Your task to perform on an android device: open app "DuckDuckGo Privacy Browser" (install if not already installed) and go to login screen Image 0: 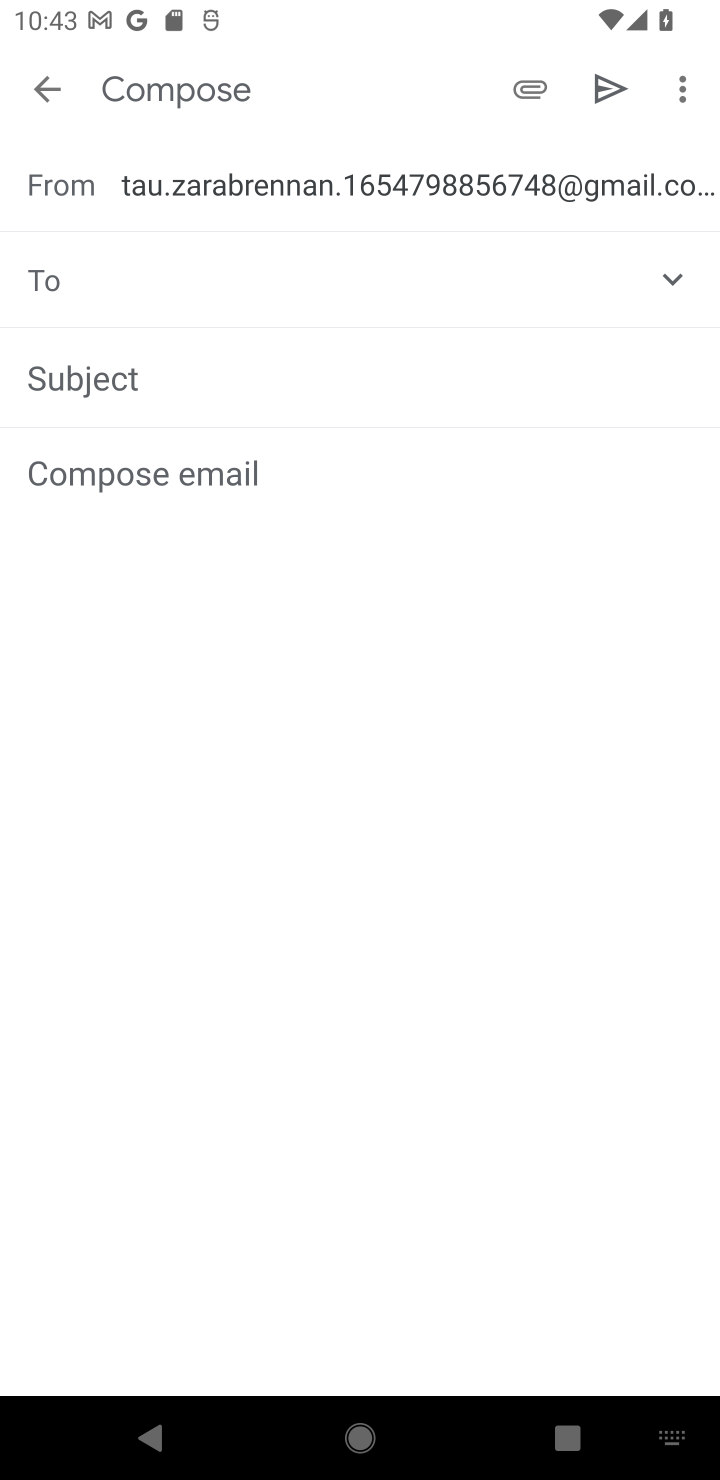
Step 0: press home button
Your task to perform on an android device: open app "DuckDuckGo Privacy Browser" (install if not already installed) and go to login screen Image 1: 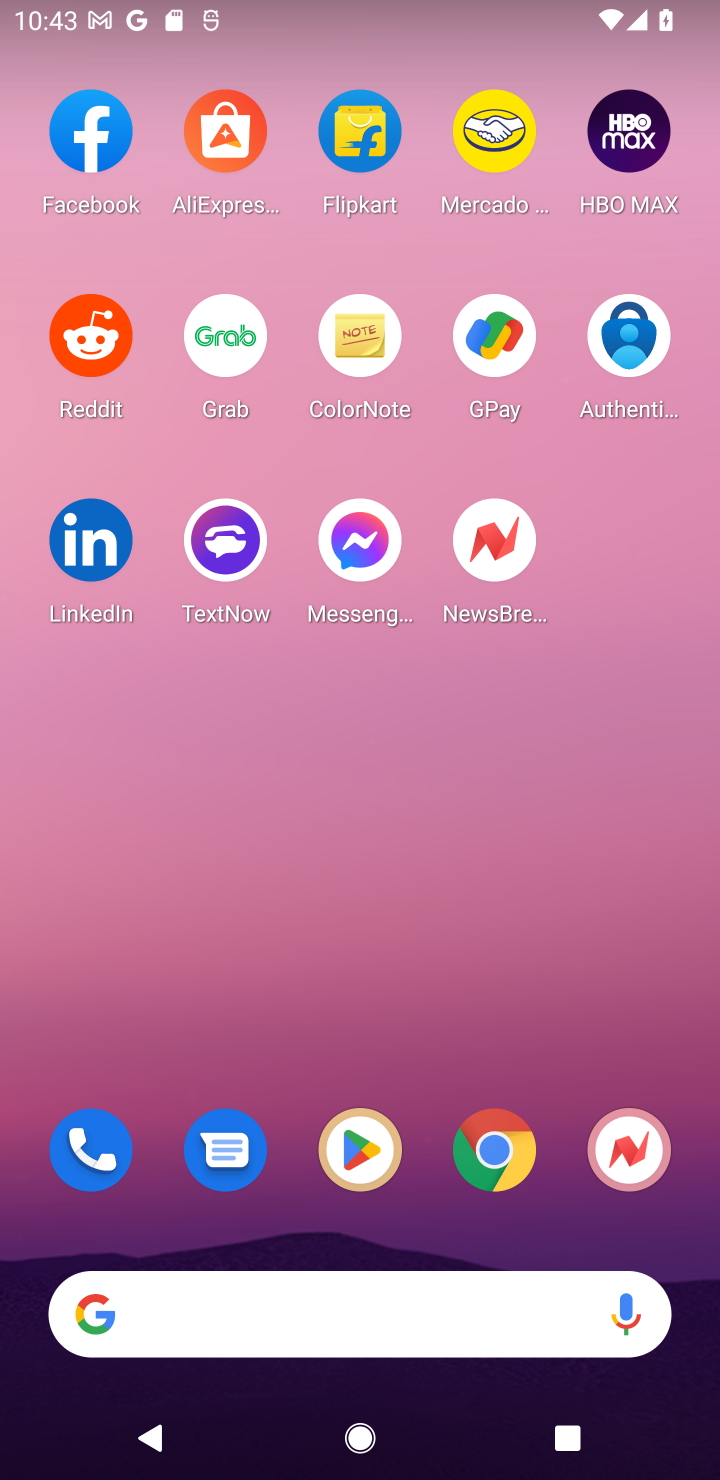
Step 1: click (356, 1170)
Your task to perform on an android device: open app "DuckDuckGo Privacy Browser" (install if not already installed) and go to login screen Image 2: 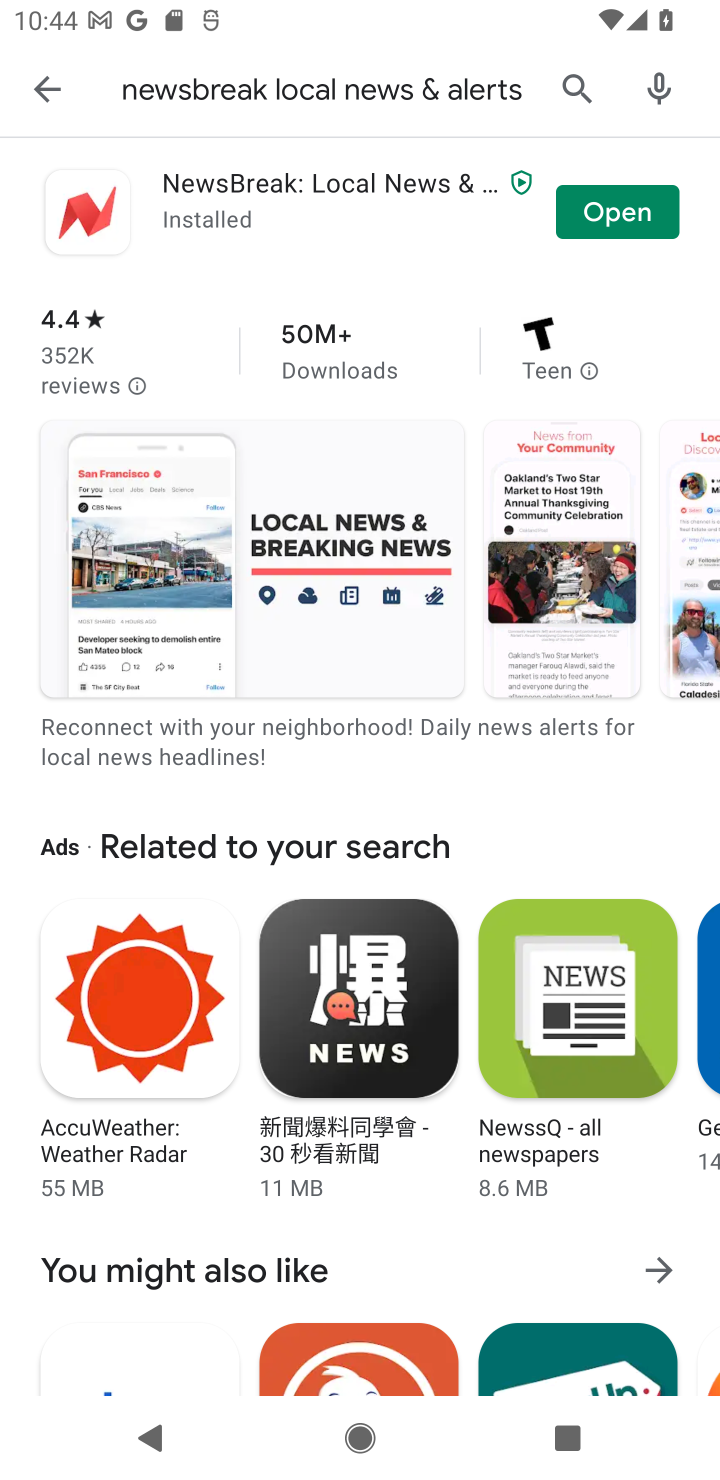
Step 2: click (578, 78)
Your task to perform on an android device: open app "DuckDuckGo Privacy Browser" (install if not already installed) and go to login screen Image 3: 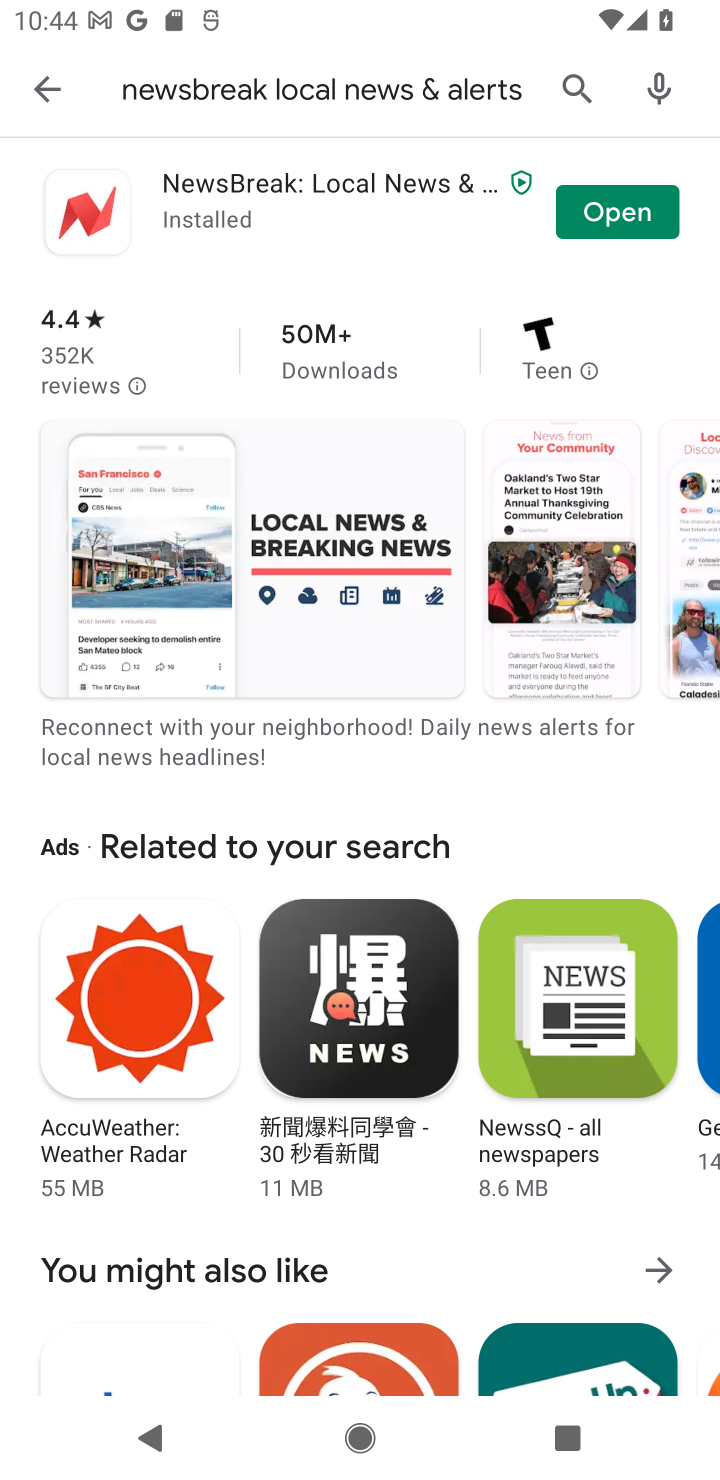
Step 3: click (578, 78)
Your task to perform on an android device: open app "DuckDuckGo Privacy Browser" (install if not already installed) and go to login screen Image 4: 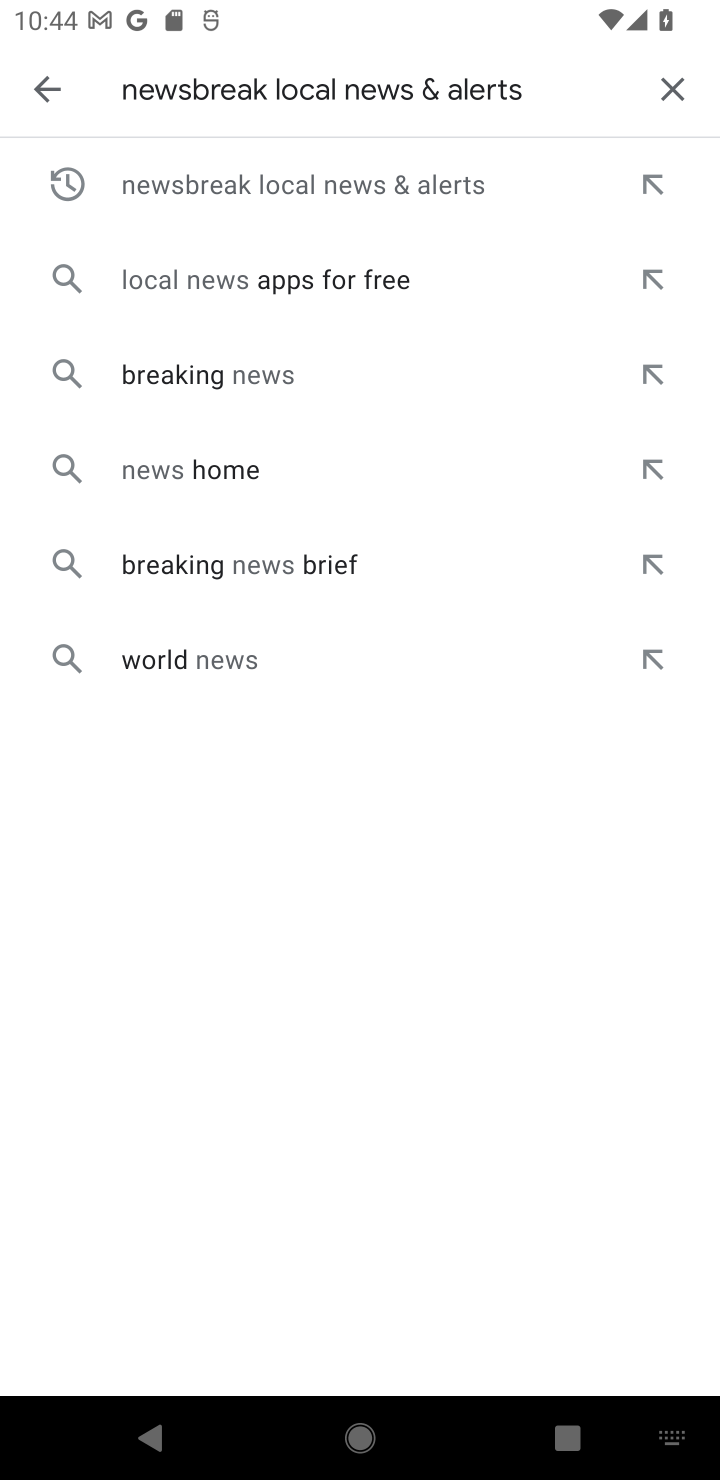
Step 4: click (661, 86)
Your task to perform on an android device: open app "DuckDuckGo Privacy Browser" (install if not already installed) and go to login screen Image 5: 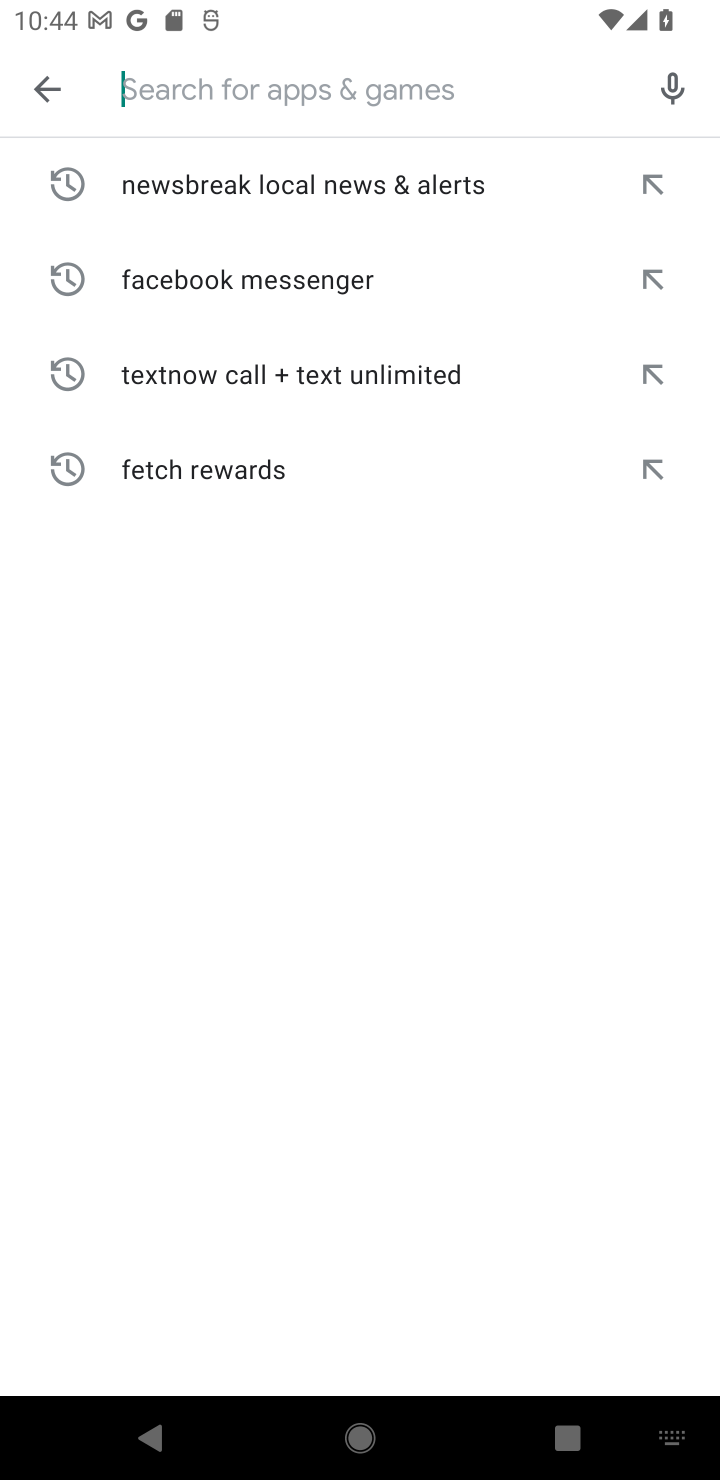
Step 5: type "DuckDuckGo Privacy Browser"
Your task to perform on an android device: open app "DuckDuckGo Privacy Browser" (install if not already installed) and go to login screen Image 6: 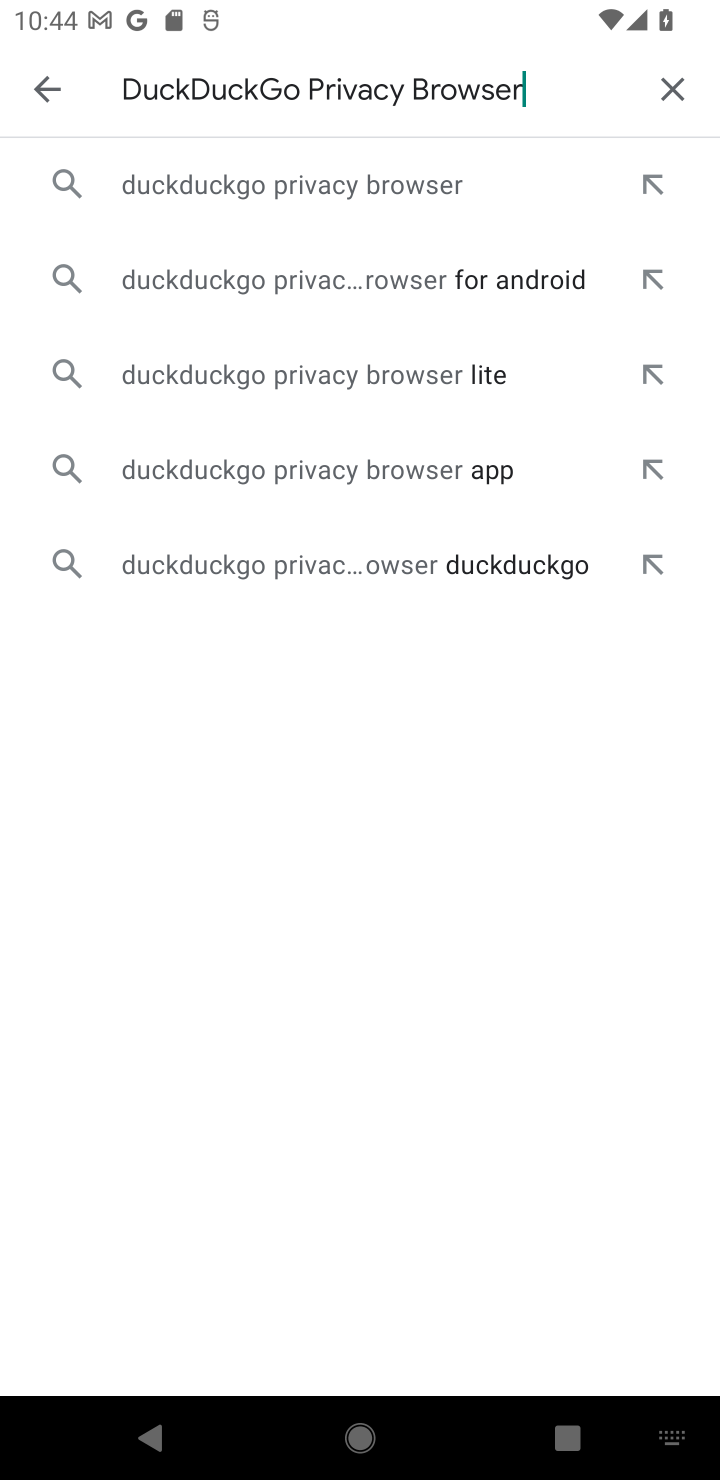
Step 6: click (353, 181)
Your task to perform on an android device: open app "DuckDuckGo Privacy Browser" (install if not already installed) and go to login screen Image 7: 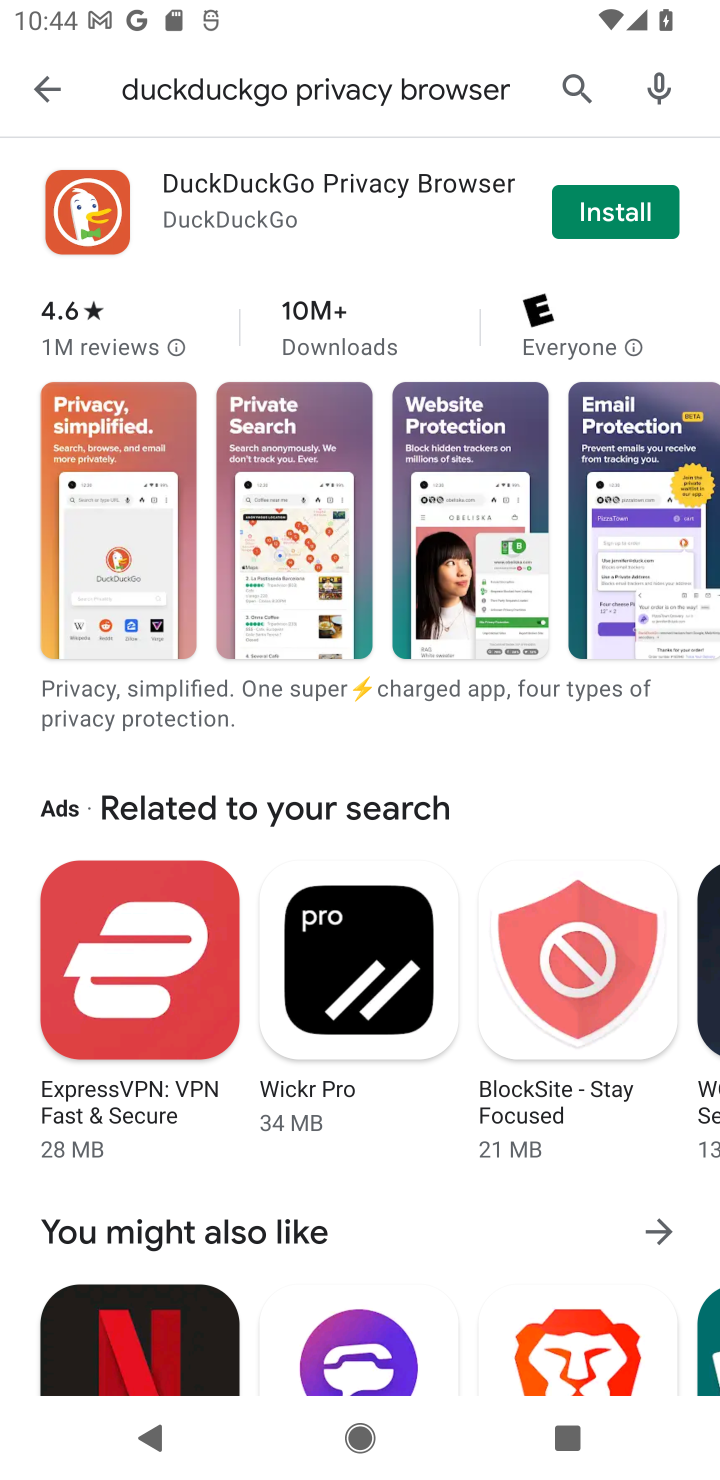
Step 7: click (616, 209)
Your task to perform on an android device: open app "DuckDuckGo Privacy Browser" (install if not already installed) and go to login screen Image 8: 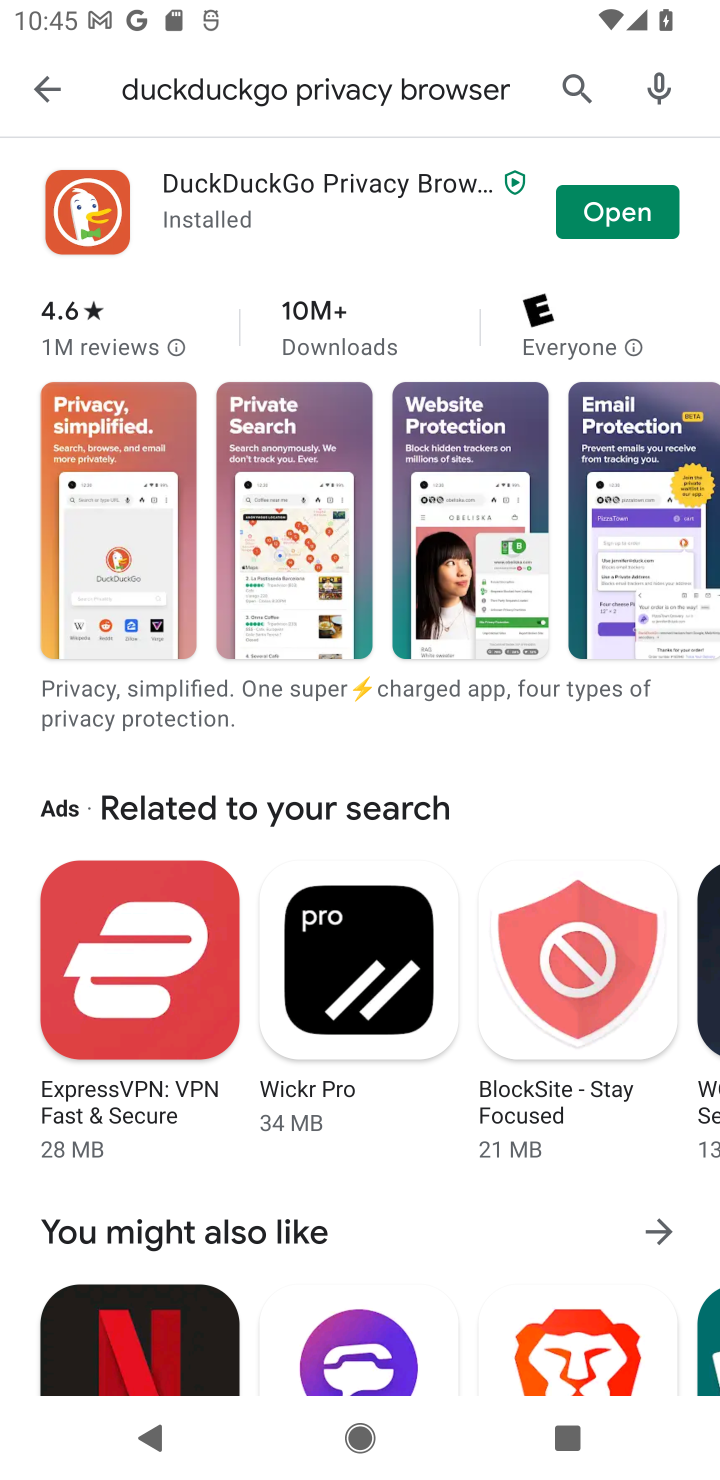
Step 8: click (580, 220)
Your task to perform on an android device: open app "DuckDuckGo Privacy Browser" (install if not already installed) and go to login screen Image 9: 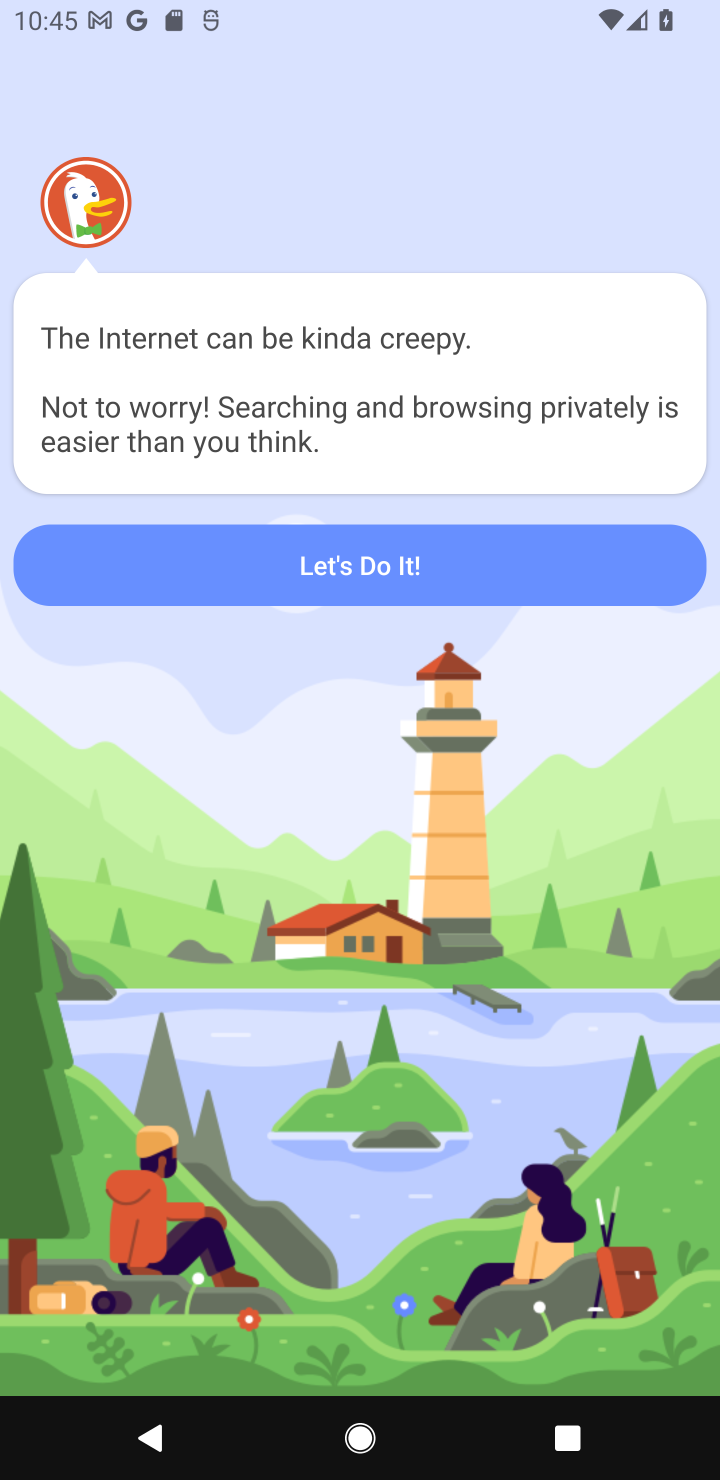
Step 9: task complete